Your task to perform on an android device: Add "jbl charge 4" to the cart on newegg.com, then select checkout. Image 0: 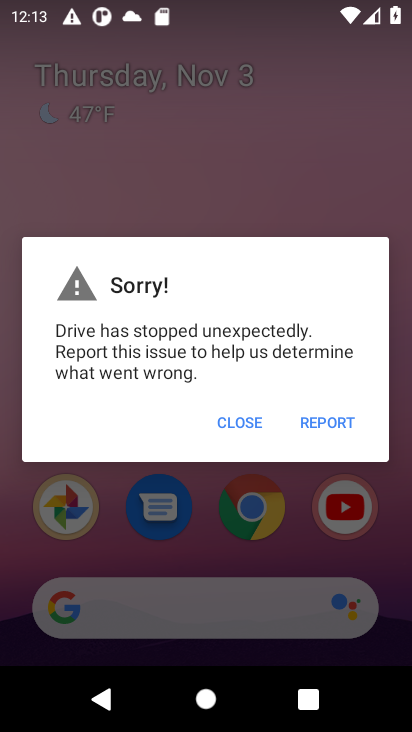
Step 0: press home button
Your task to perform on an android device: Add "jbl charge 4" to the cart on newegg.com, then select checkout. Image 1: 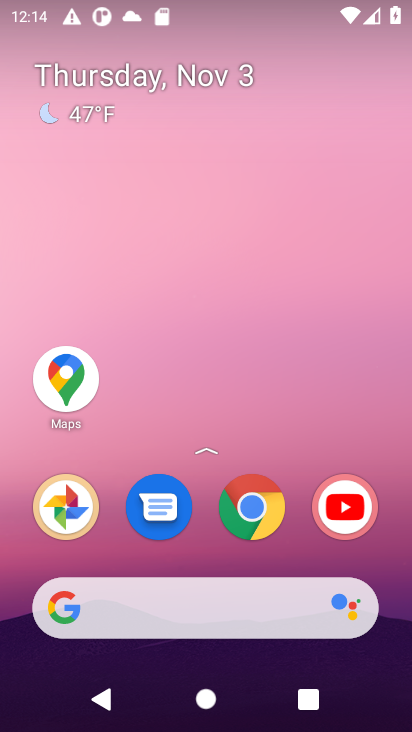
Step 1: click (127, 604)
Your task to perform on an android device: Add "jbl charge 4" to the cart on newegg.com, then select checkout. Image 2: 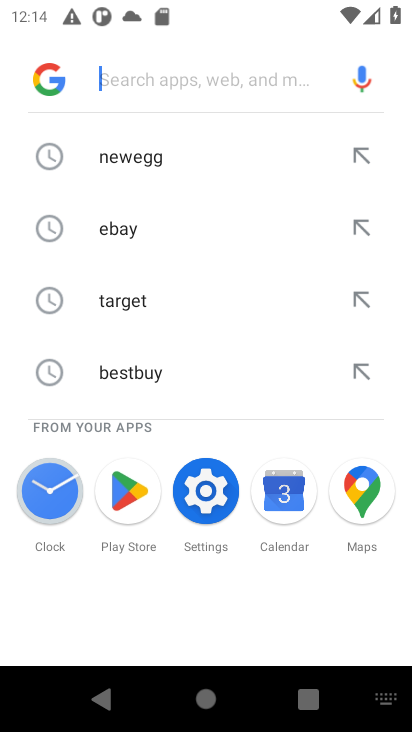
Step 2: click (154, 173)
Your task to perform on an android device: Add "jbl charge 4" to the cart on newegg.com, then select checkout. Image 3: 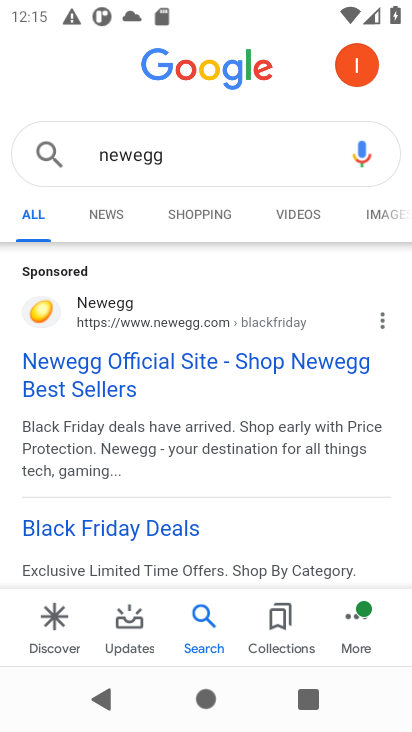
Step 3: click (85, 351)
Your task to perform on an android device: Add "jbl charge 4" to the cart on newegg.com, then select checkout. Image 4: 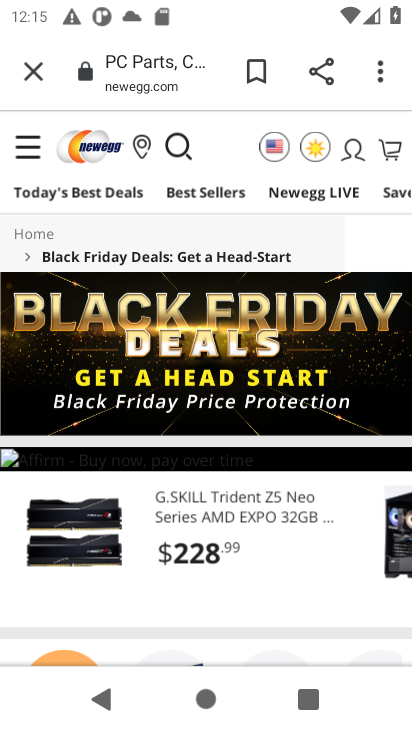
Step 4: task complete